Your task to perform on an android device: change your default location settings in chrome Image 0: 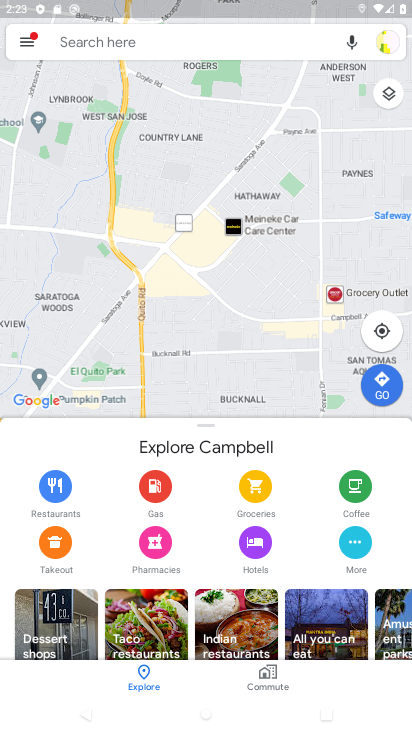
Step 0: press home button
Your task to perform on an android device: change your default location settings in chrome Image 1: 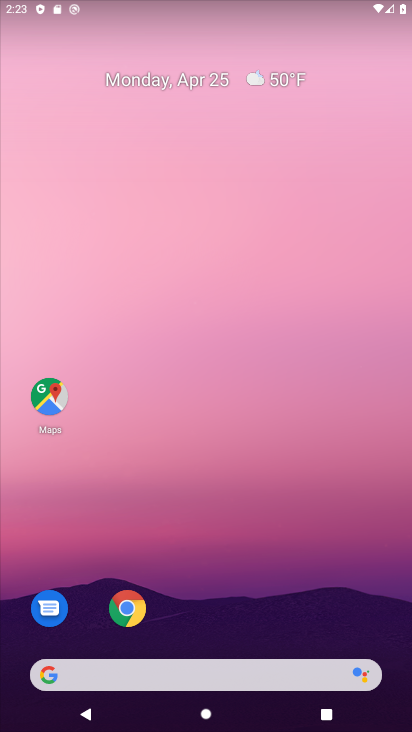
Step 1: click (120, 612)
Your task to perform on an android device: change your default location settings in chrome Image 2: 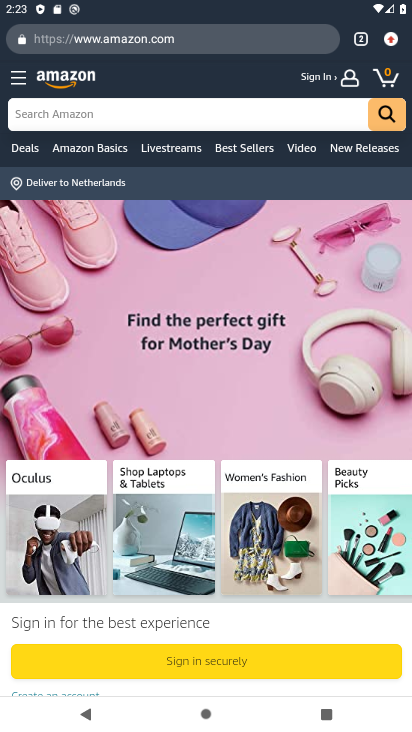
Step 2: drag from (393, 40) to (266, 504)
Your task to perform on an android device: change your default location settings in chrome Image 3: 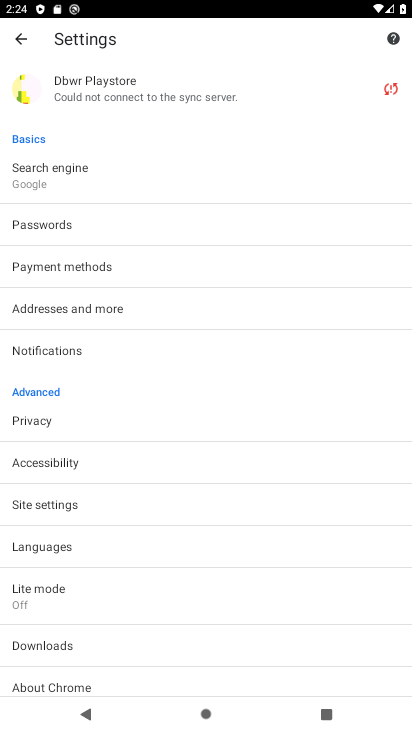
Step 3: drag from (113, 630) to (134, 541)
Your task to perform on an android device: change your default location settings in chrome Image 4: 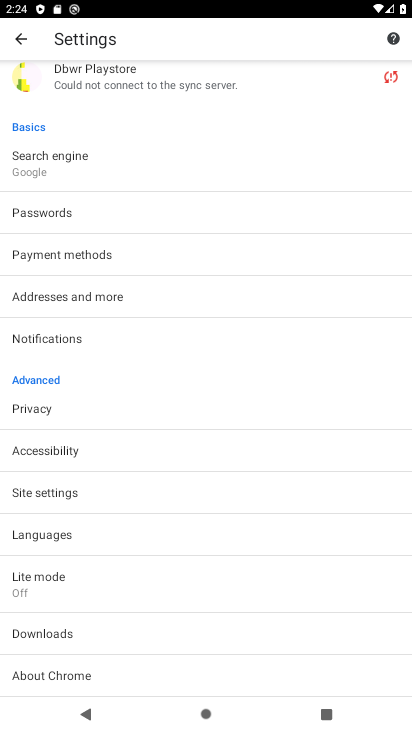
Step 4: click (91, 496)
Your task to perform on an android device: change your default location settings in chrome Image 5: 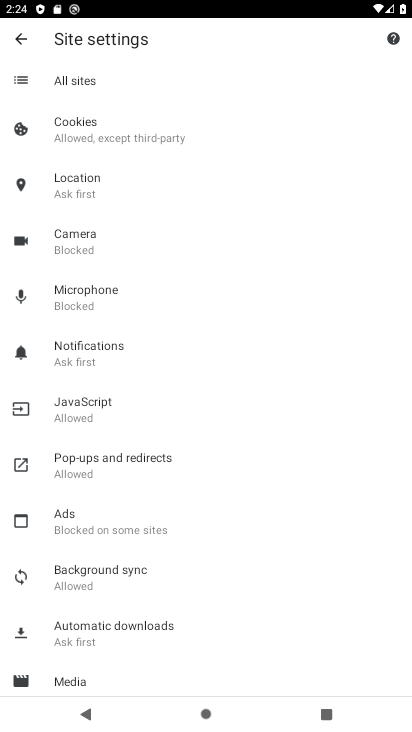
Step 5: click (107, 183)
Your task to perform on an android device: change your default location settings in chrome Image 6: 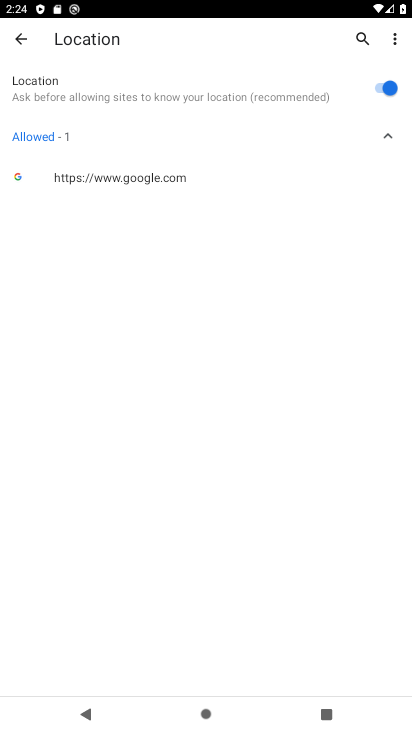
Step 6: click (379, 89)
Your task to perform on an android device: change your default location settings in chrome Image 7: 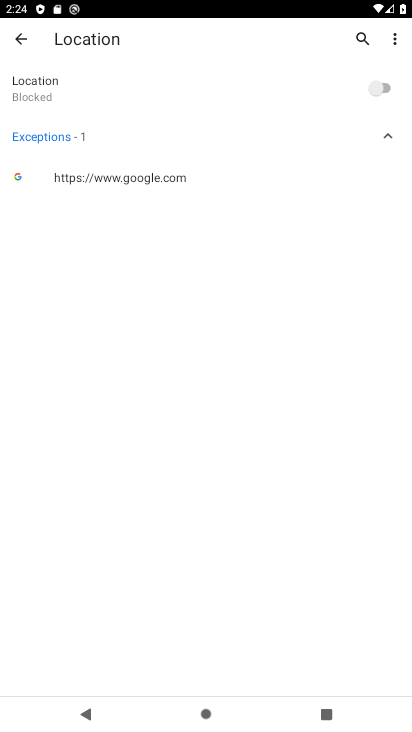
Step 7: task complete